Your task to perform on an android device: Go to Reddit.com Image 0: 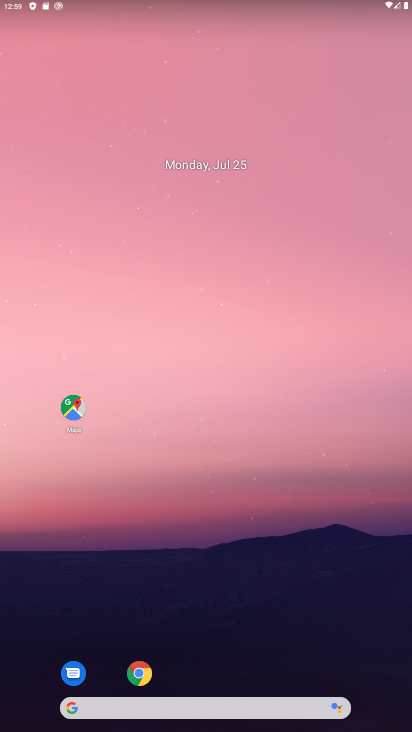
Step 0: click (141, 676)
Your task to perform on an android device: Go to Reddit.com Image 1: 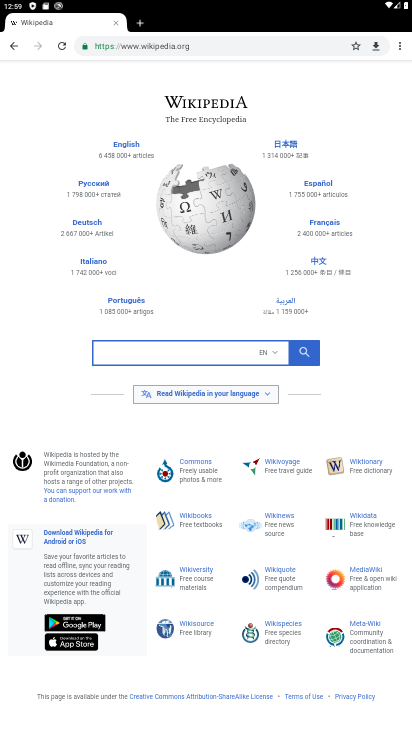
Step 1: click (224, 40)
Your task to perform on an android device: Go to Reddit.com Image 2: 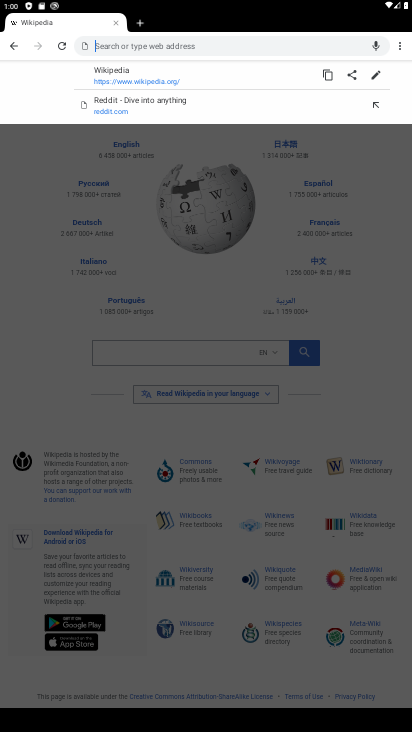
Step 2: type "reddit.com"
Your task to perform on an android device: Go to Reddit.com Image 3: 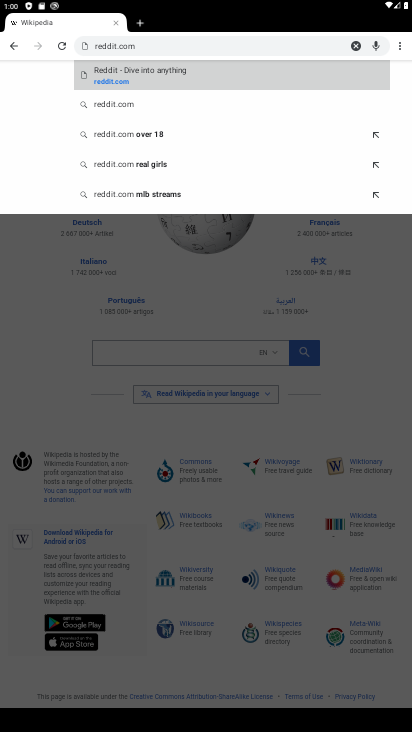
Step 3: click (110, 68)
Your task to perform on an android device: Go to Reddit.com Image 4: 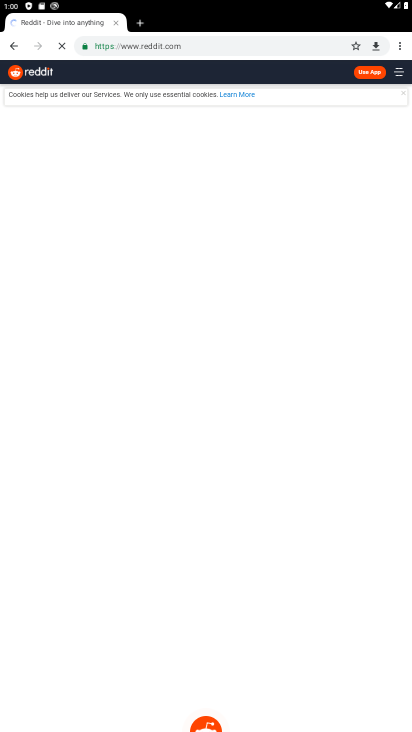
Step 4: task complete